Your task to perform on an android device: manage bookmarks in the chrome app Image 0: 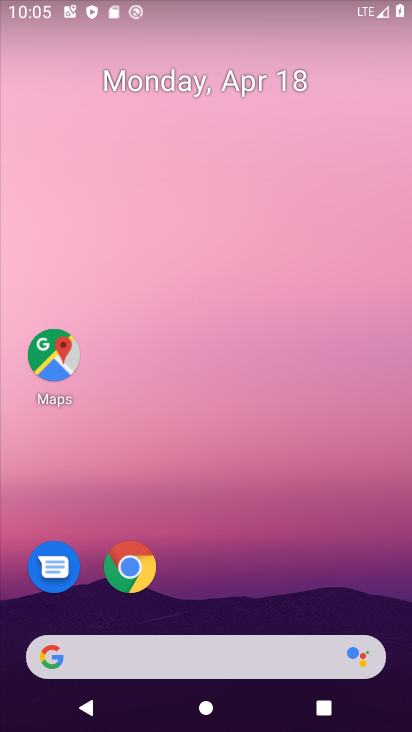
Step 0: drag from (361, 587) to (345, 128)
Your task to perform on an android device: manage bookmarks in the chrome app Image 1: 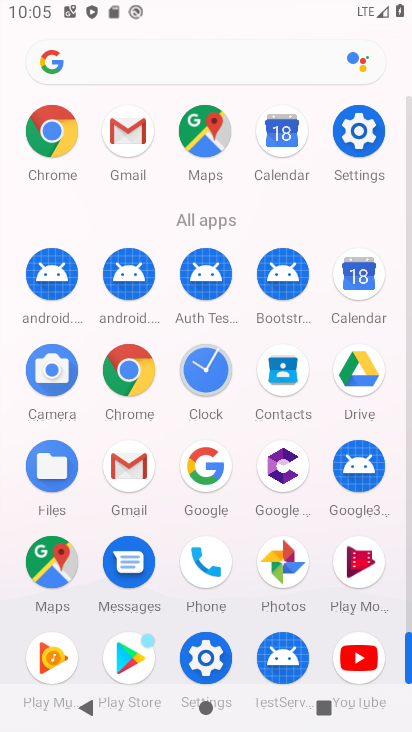
Step 1: click (127, 381)
Your task to perform on an android device: manage bookmarks in the chrome app Image 2: 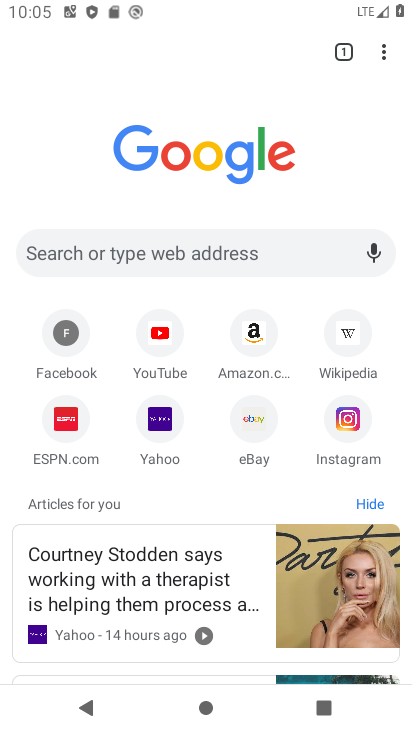
Step 2: click (383, 55)
Your task to perform on an android device: manage bookmarks in the chrome app Image 3: 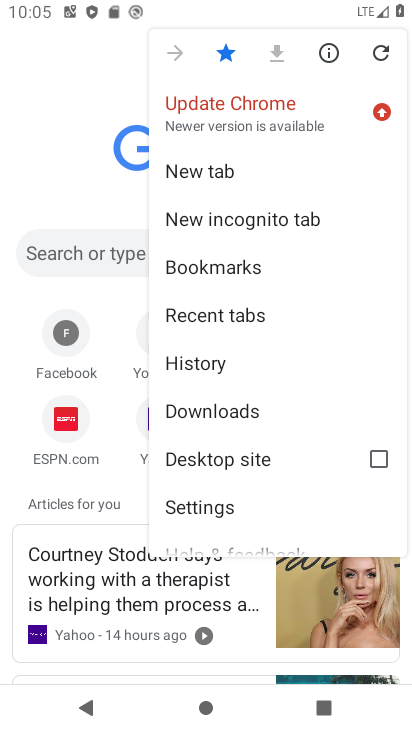
Step 3: click (195, 268)
Your task to perform on an android device: manage bookmarks in the chrome app Image 4: 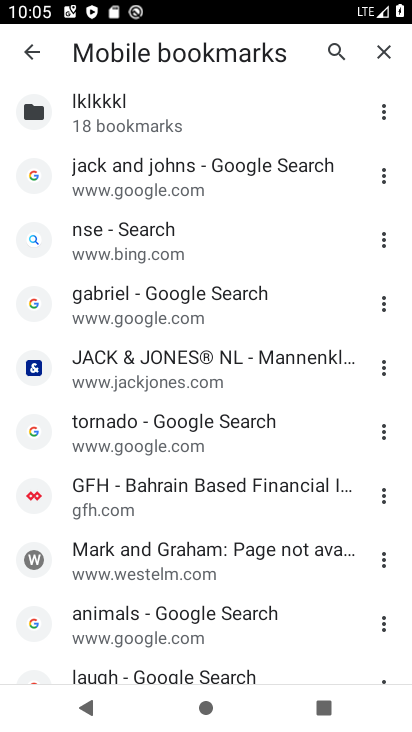
Step 4: task complete